Your task to perform on an android device: Open the calendar and show me this week's events? Image 0: 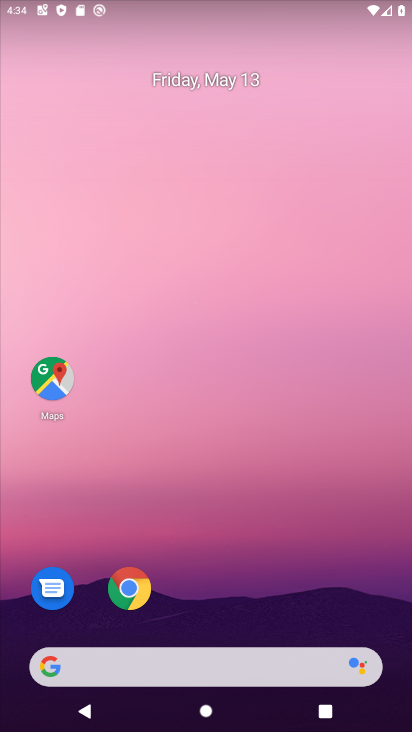
Step 0: click (218, 85)
Your task to perform on an android device: Open the calendar and show me this week's events? Image 1: 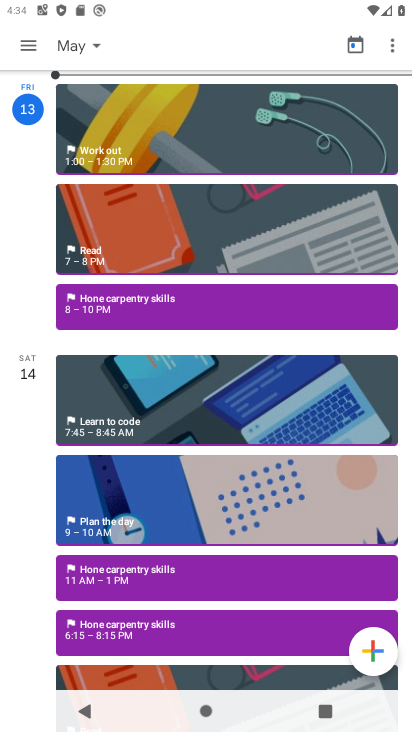
Step 1: press home button
Your task to perform on an android device: Open the calendar and show me this week's events? Image 2: 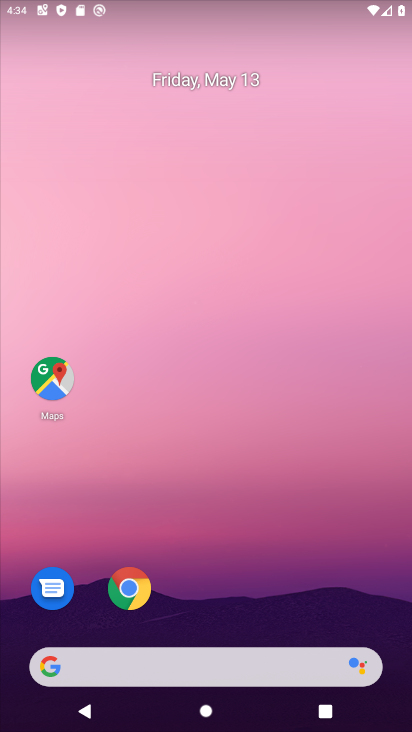
Step 2: click (231, 84)
Your task to perform on an android device: Open the calendar and show me this week's events? Image 3: 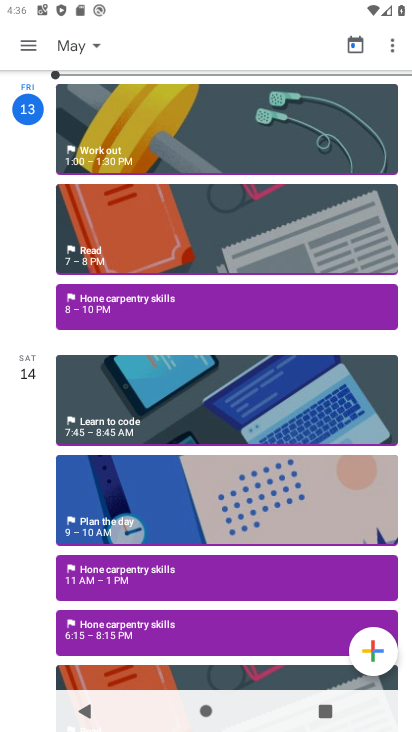
Step 3: task complete